Your task to perform on an android device: turn pop-ups on in chrome Image 0: 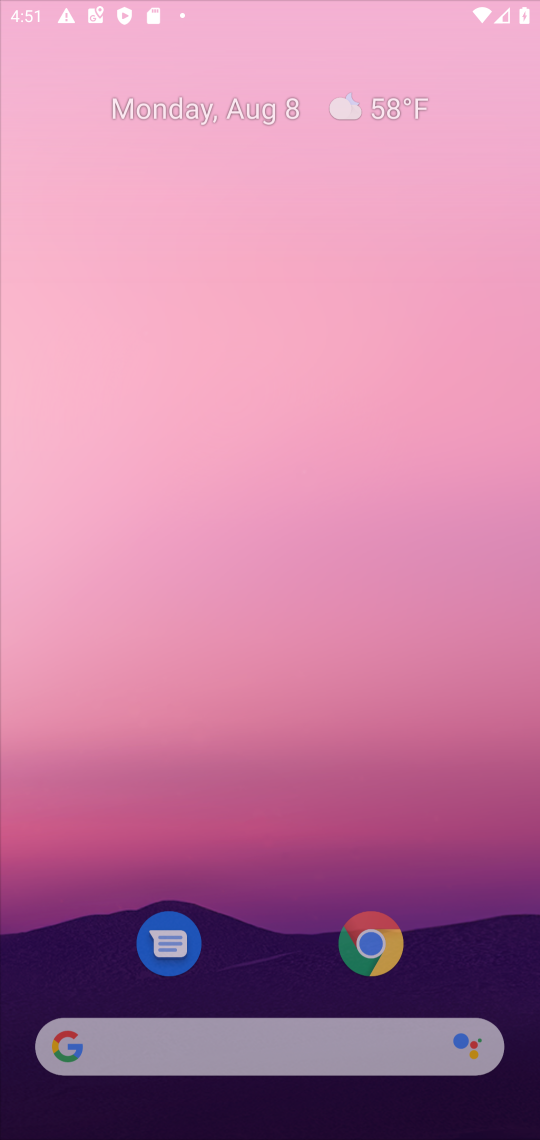
Step 0: press home button
Your task to perform on an android device: turn pop-ups on in chrome Image 1: 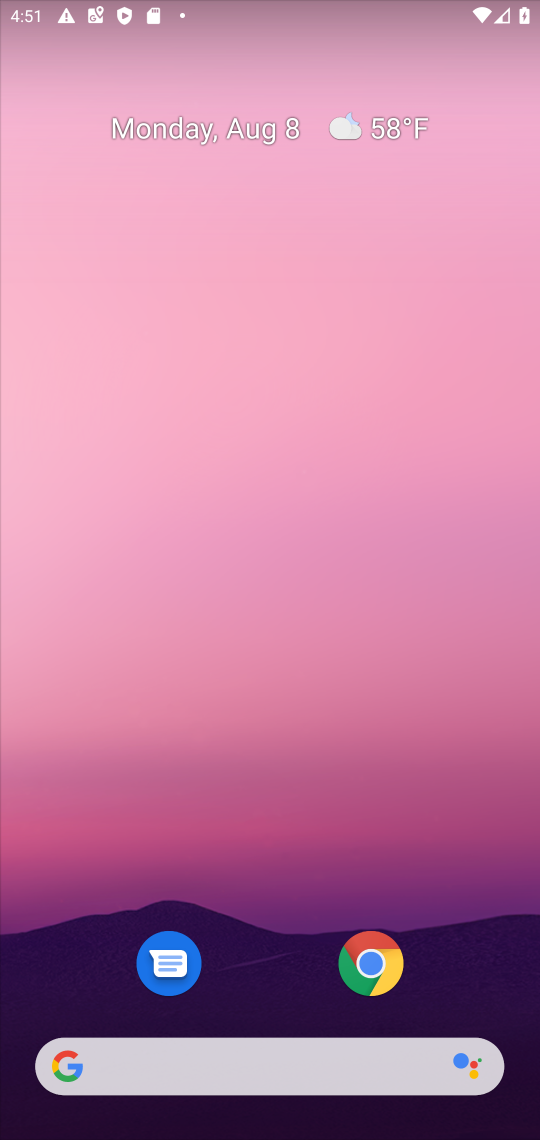
Step 1: click (388, 950)
Your task to perform on an android device: turn pop-ups on in chrome Image 2: 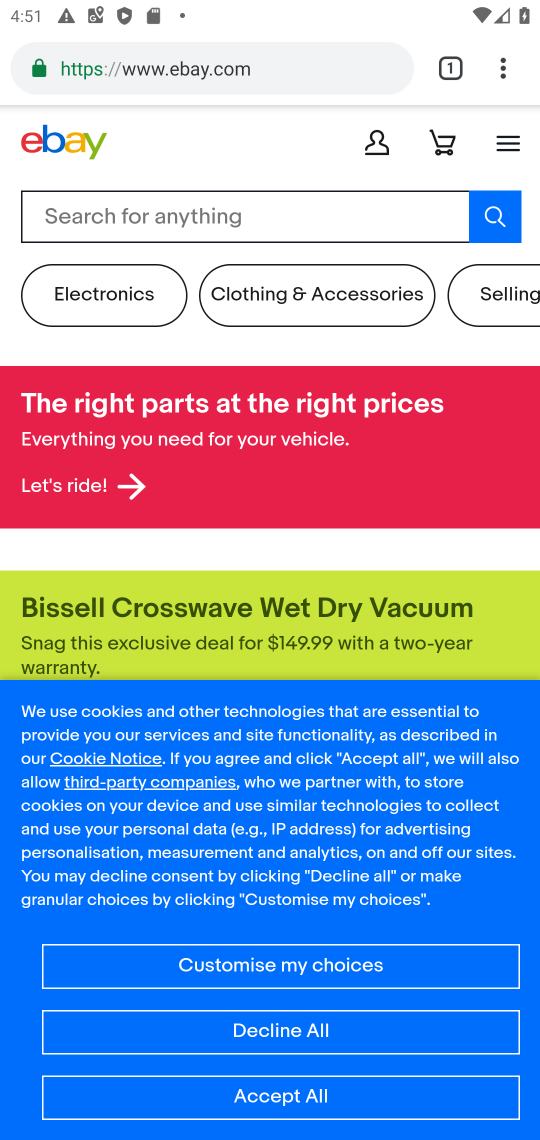
Step 2: click (499, 62)
Your task to perform on an android device: turn pop-ups on in chrome Image 3: 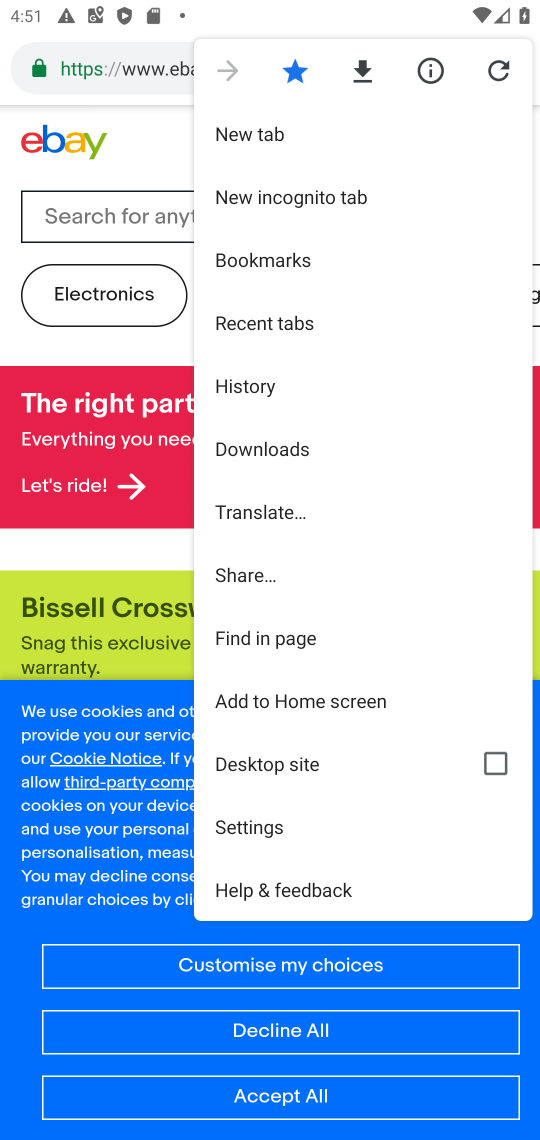
Step 3: click (274, 830)
Your task to perform on an android device: turn pop-ups on in chrome Image 4: 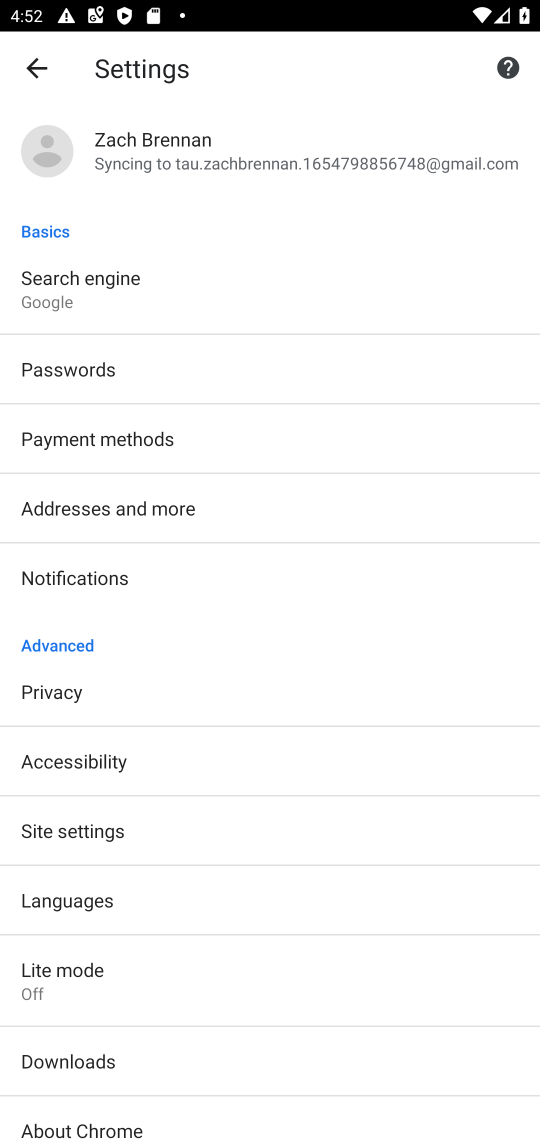
Step 4: click (195, 841)
Your task to perform on an android device: turn pop-ups on in chrome Image 5: 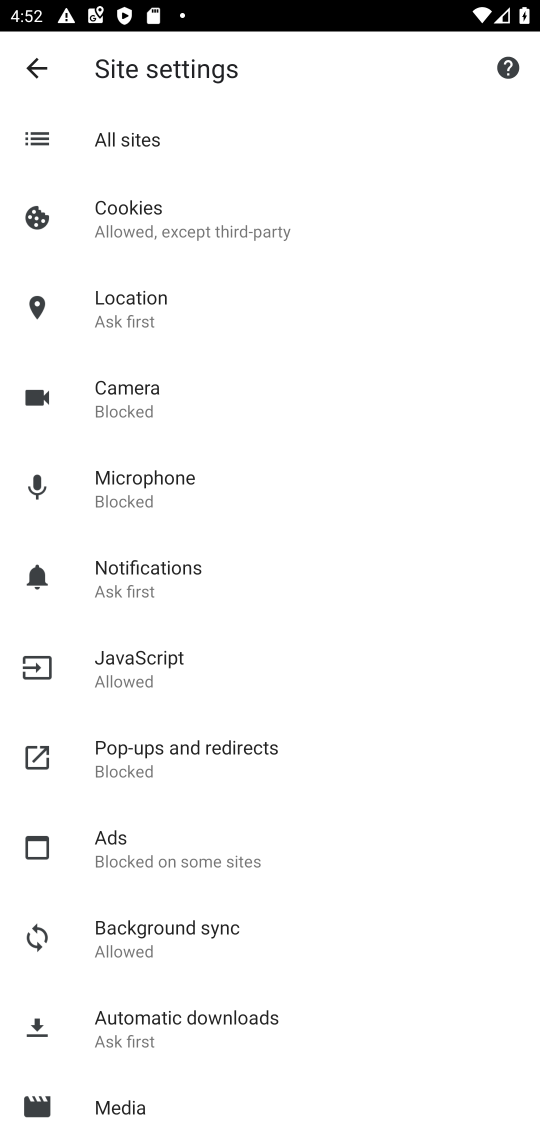
Step 5: click (308, 762)
Your task to perform on an android device: turn pop-ups on in chrome Image 6: 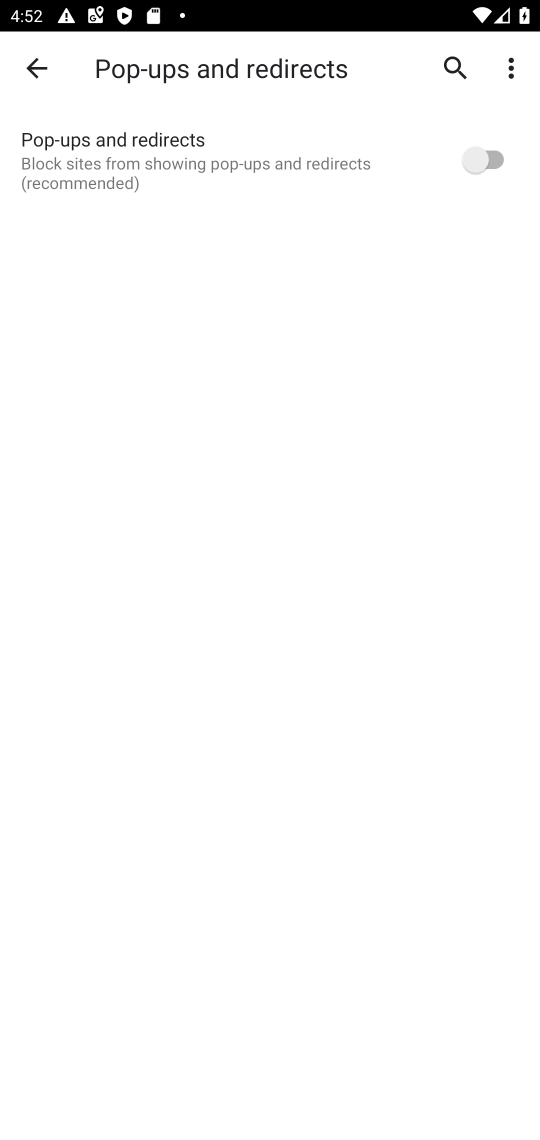
Step 6: click (490, 134)
Your task to perform on an android device: turn pop-ups on in chrome Image 7: 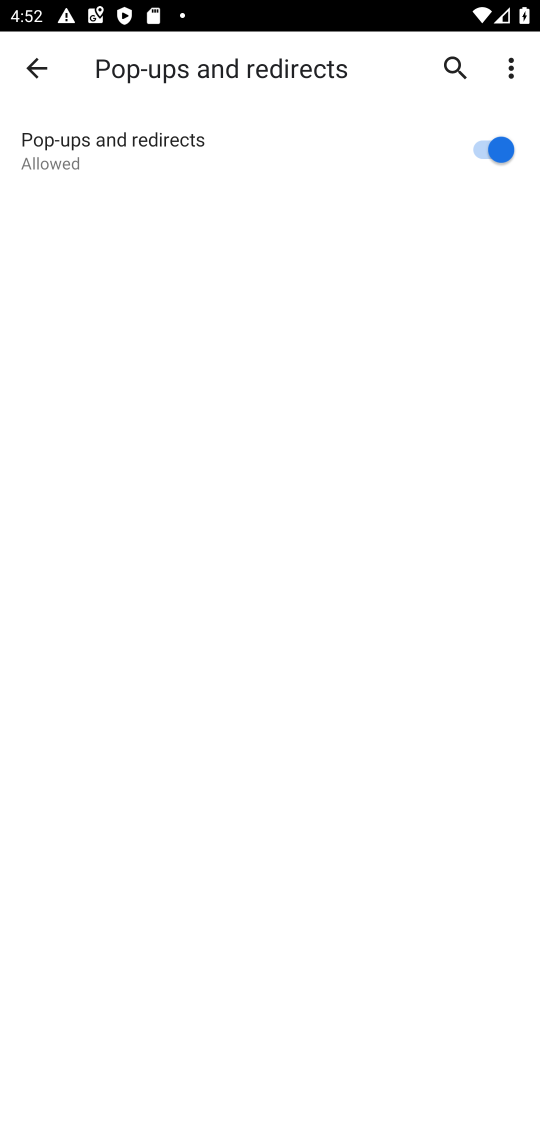
Step 7: task complete